Your task to perform on an android device: turn off data saver in the chrome app Image 0: 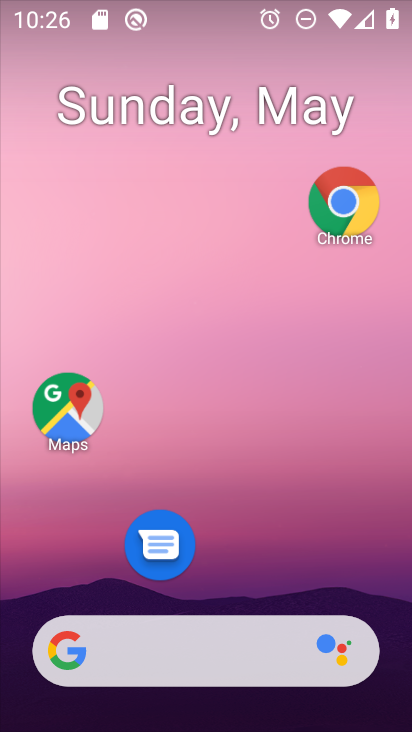
Step 0: click (344, 213)
Your task to perform on an android device: turn off data saver in the chrome app Image 1: 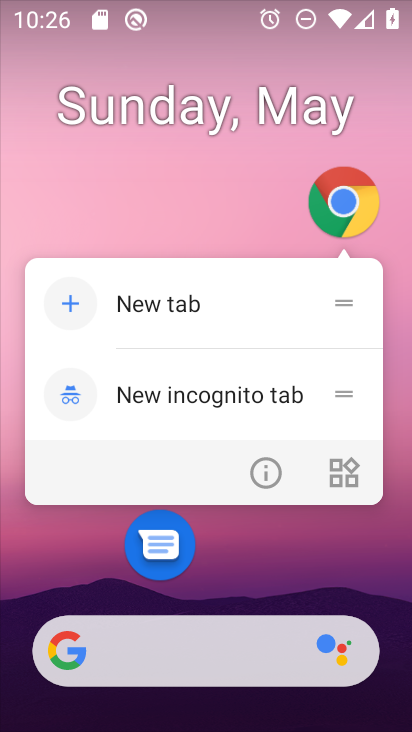
Step 1: click (344, 212)
Your task to perform on an android device: turn off data saver in the chrome app Image 2: 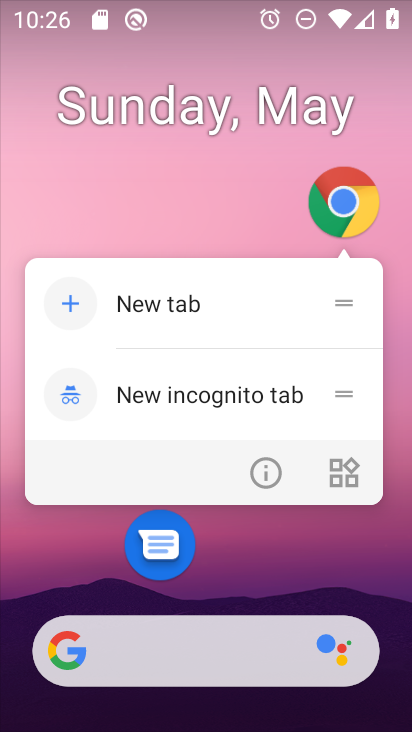
Step 2: click (344, 210)
Your task to perform on an android device: turn off data saver in the chrome app Image 3: 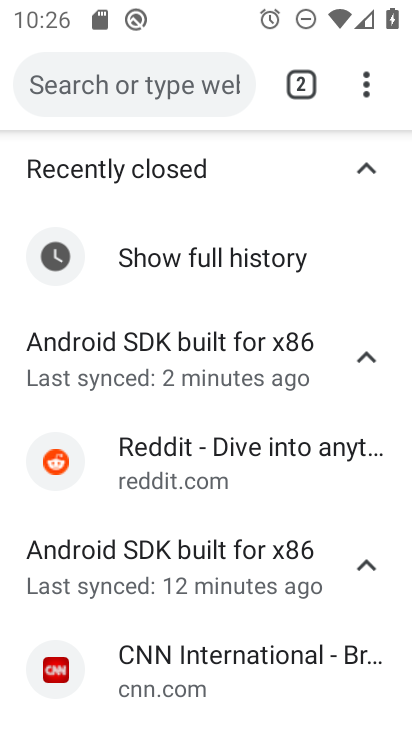
Step 3: click (358, 81)
Your task to perform on an android device: turn off data saver in the chrome app Image 4: 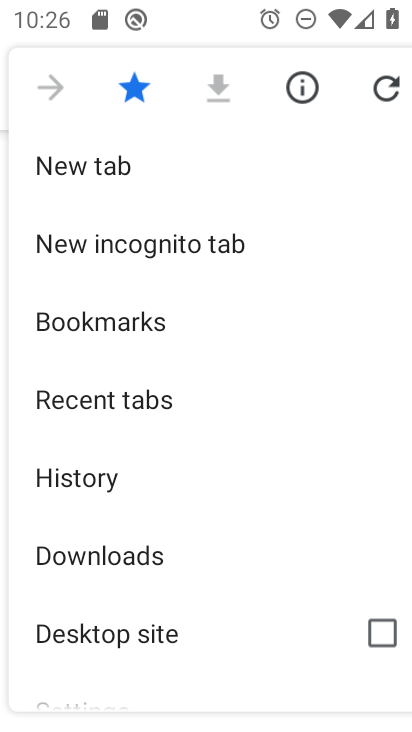
Step 4: drag from (194, 555) to (235, 296)
Your task to perform on an android device: turn off data saver in the chrome app Image 5: 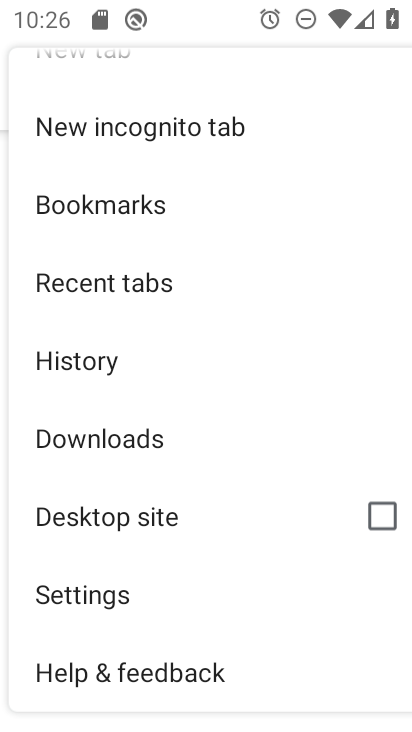
Step 5: click (114, 602)
Your task to perform on an android device: turn off data saver in the chrome app Image 6: 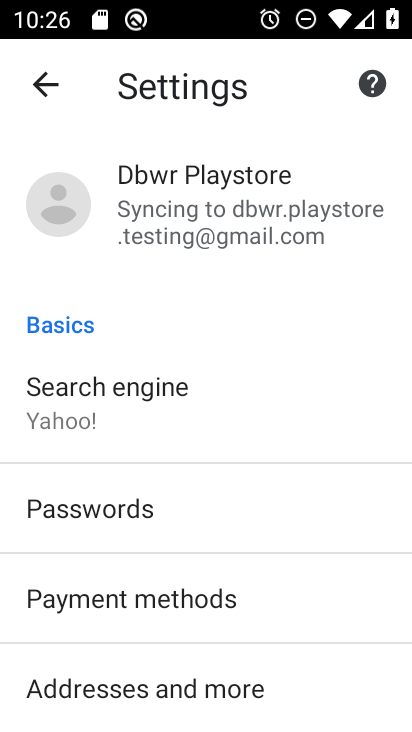
Step 6: drag from (195, 675) to (234, 347)
Your task to perform on an android device: turn off data saver in the chrome app Image 7: 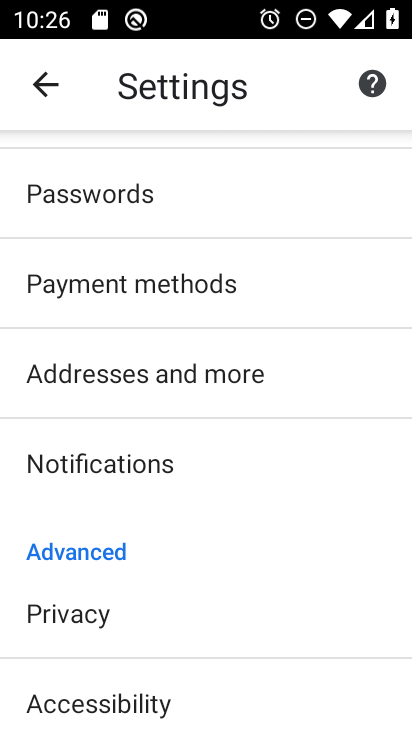
Step 7: drag from (290, 620) to (318, 346)
Your task to perform on an android device: turn off data saver in the chrome app Image 8: 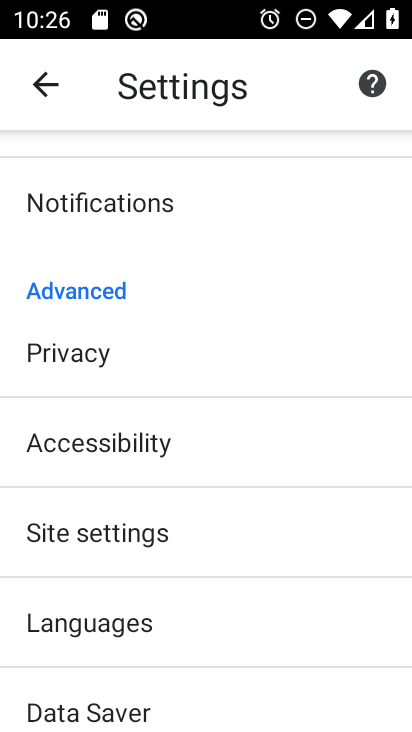
Step 8: drag from (180, 653) to (210, 471)
Your task to perform on an android device: turn off data saver in the chrome app Image 9: 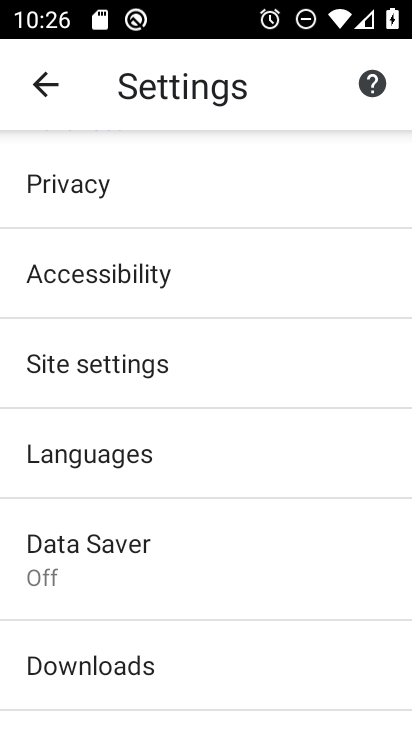
Step 9: click (174, 571)
Your task to perform on an android device: turn off data saver in the chrome app Image 10: 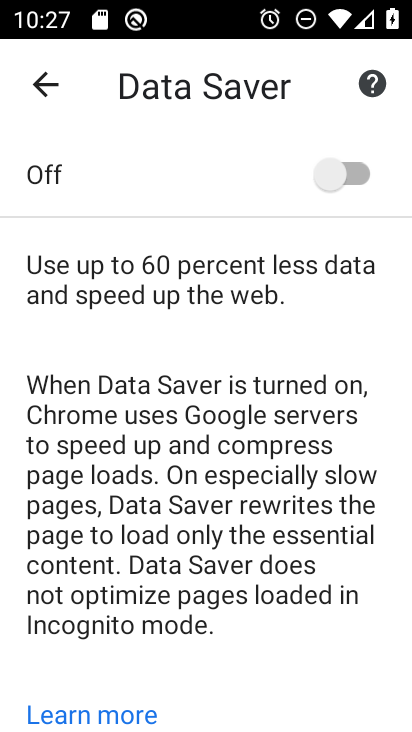
Step 10: task complete